Your task to perform on an android device: turn off data saver in the chrome app Image 0: 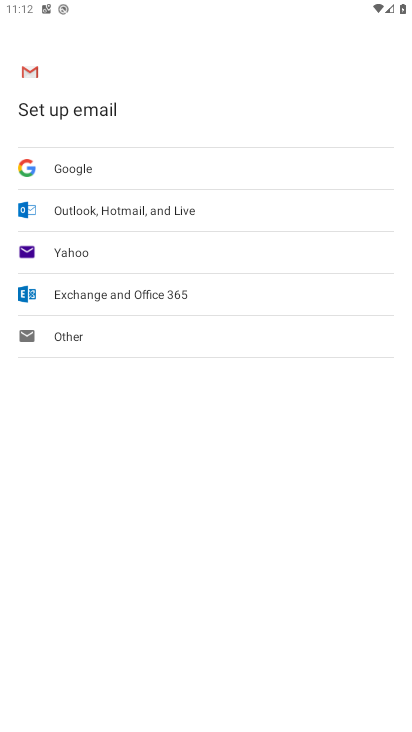
Step 0: press home button
Your task to perform on an android device: turn off data saver in the chrome app Image 1: 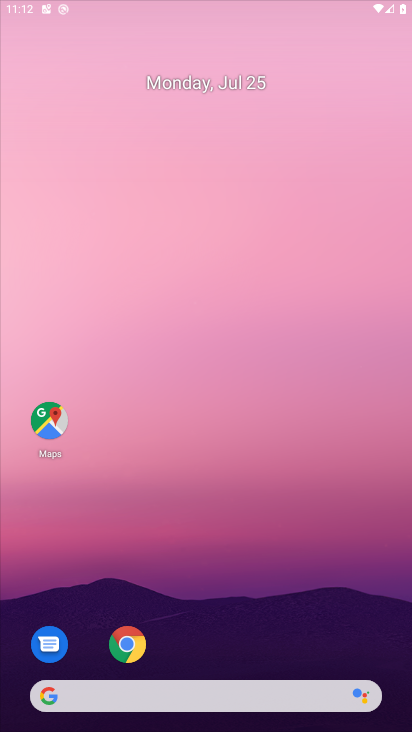
Step 1: drag from (266, 577) to (219, 156)
Your task to perform on an android device: turn off data saver in the chrome app Image 2: 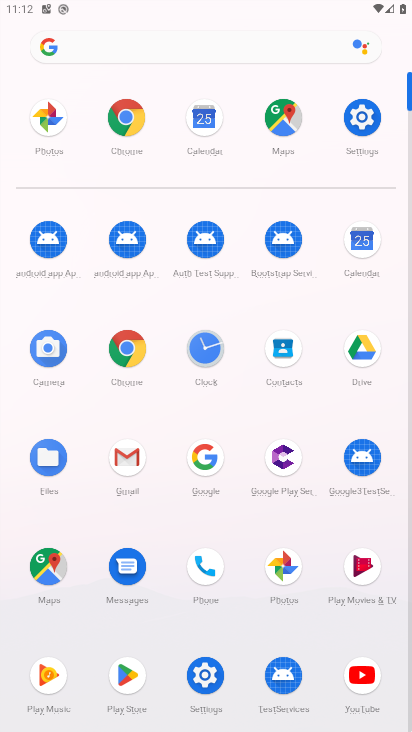
Step 2: click (150, 97)
Your task to perform on an android device: turn off data saver in the chrome app Image 3: 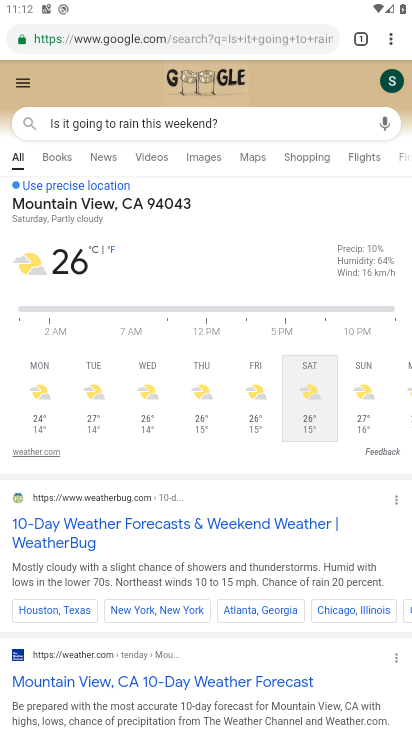
Step 3: drag from (403, 49) to (233, 420)
Your task to perform on an android device: turn off data saver in the chrome app Image 4: 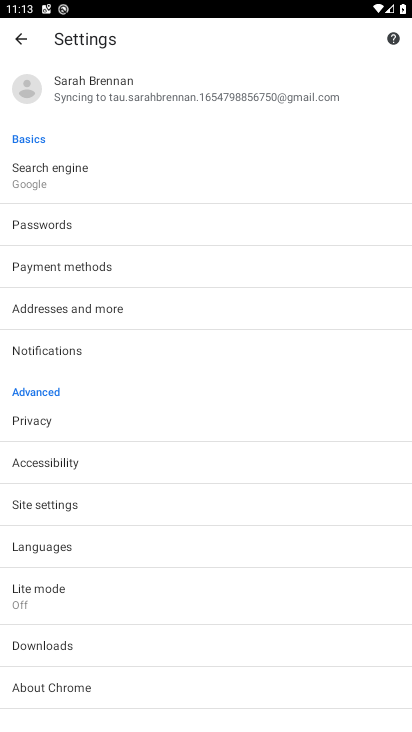
Step 4: click (31, 590)
Your task to perform on an android device: turn off data saver in the chrome app Image 5: 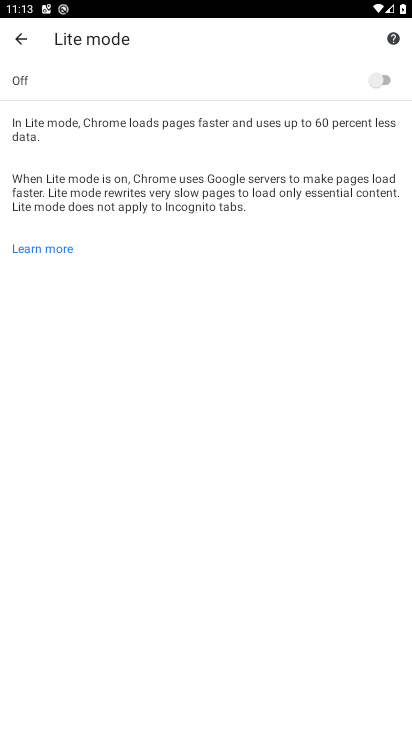
Step 5: task complete